Your task to perform on an android device: Clear the shopping cart on target.com. Add "jbl flip 4" to the cart on target.com, then select checkout. Image 0: 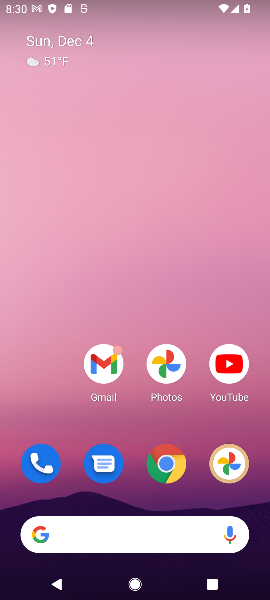
Step 0: click (77, 545)
Your task to perform on an android device: Clear the shopping cart on target.com. Add "jbl flip 4" to the cart on target.com, then select checkout. Image 1: 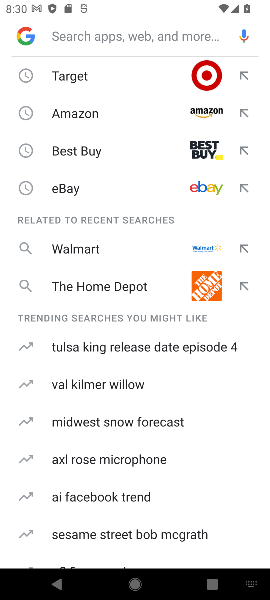
Step 1: type "target.com"
Your task to perform on an android device: Clear the shopping cart on target.com. Add "jbl flip 4" to the cart on target.com, then select checkout. Image 2: 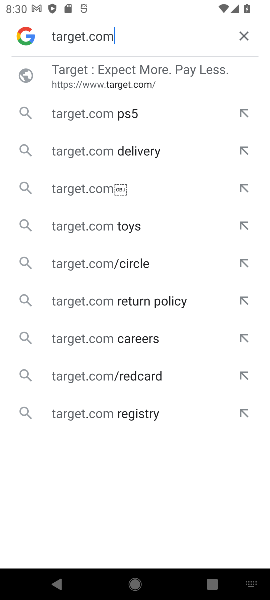
Step 2: click (89, 92)
Your task to perform on an android device: Clear the shopping cart on target.com. Add "jbl flip 4" to the cart on target.com, then select checkout. Image 3: 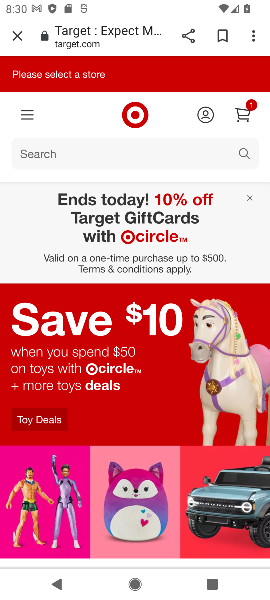
Step 3: task complete